Your task to perform on an android device: Is it going to rain this weekend? Image 0: 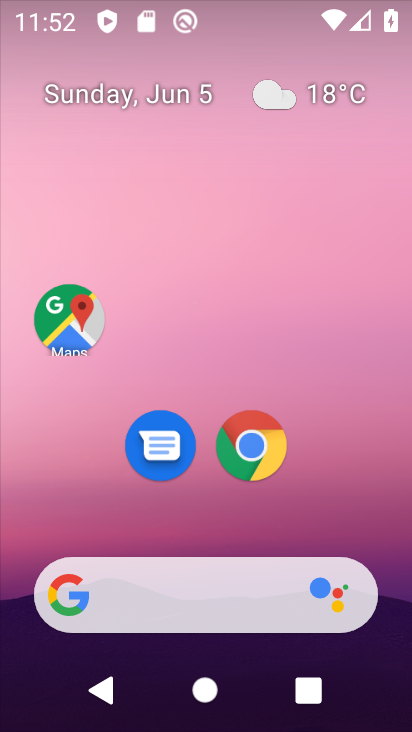
Step 0: drag from (300, 622) to (410, 77)
Your task to perform on an android device: Is it going to rain this weekend? Image 1: 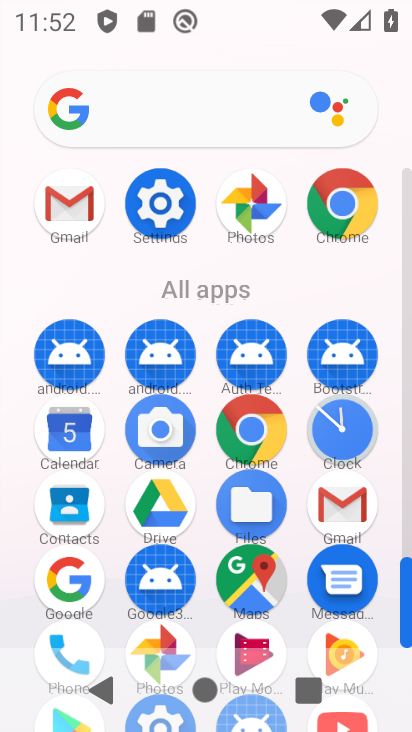
Step 1: click (264, 410)
Your task to perform on an android device: Is it going to rain this weekend? Image 2: 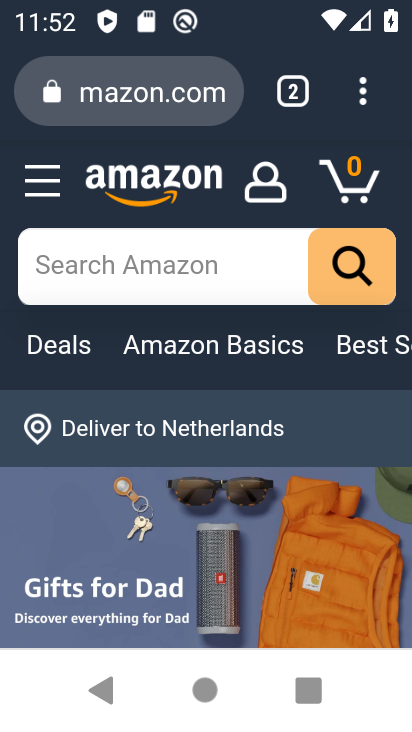
Step 2: press home button
Your task to perform on an android device: Is it going to rain this weekend? Image 3: 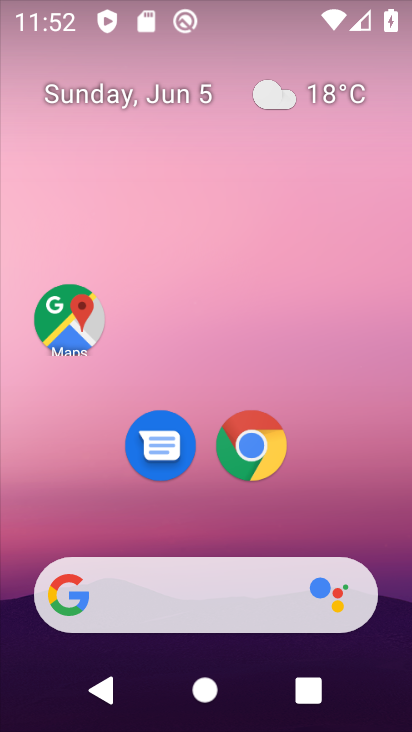
Step 3: drag from (14, 192) to (360, 215)
Your task to perform on an android device: Is it going to rain this weekend? Image 4: 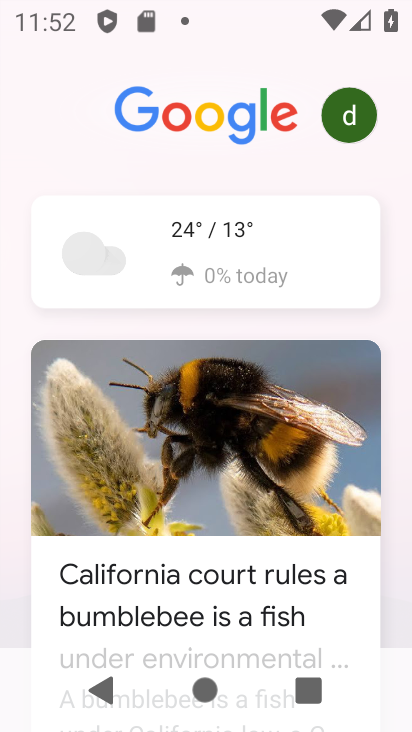
Step 4: click (296, 260)
Your task to perform on an android device: Is it going to rain this weekend? Image 5: 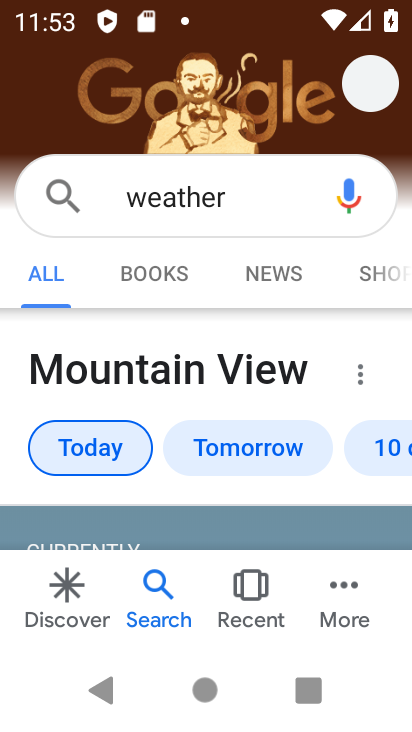
Step 5: task complete